Your task to perform on an android device: Open the map Image 0: 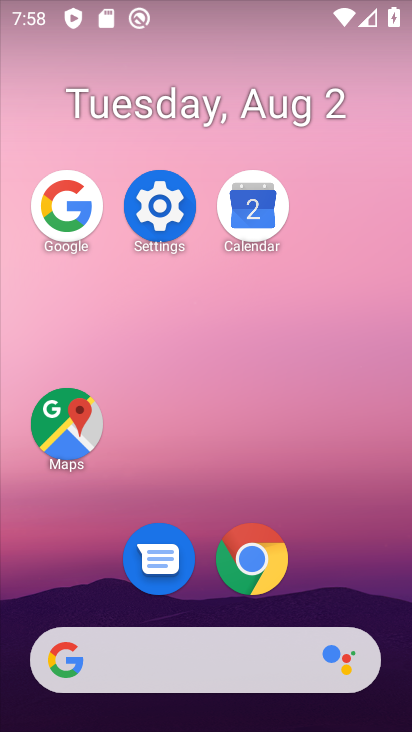
Step 0: click (63, 403)
Your task to perform on an android device: Open the map Image 1: 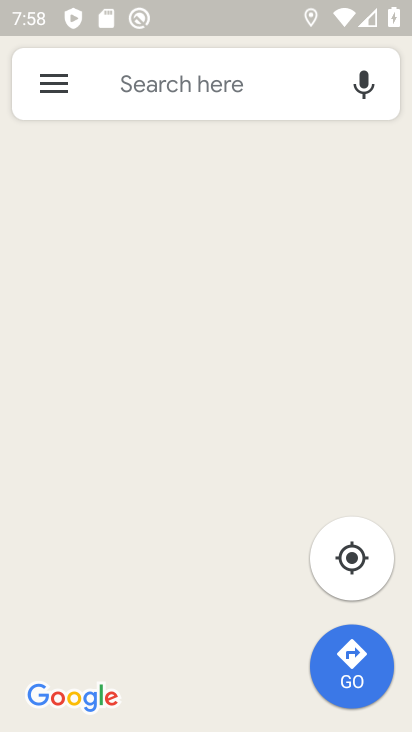
Step 1: task complete